Your task to perform on an android device: What's on my calendar tomorrow? Image 0: 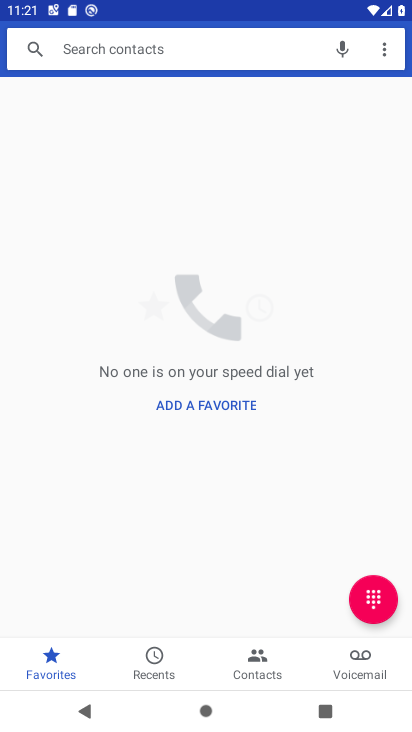
Step 0: press home button
Your task to perform on an android device: What's on my calendar tomorrow? Image 1: 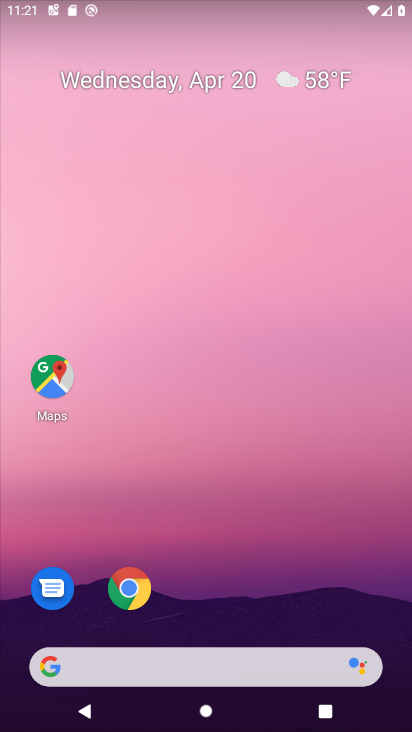
Step 1: click (114, 79)
Your task to perform on an android device: What's on my calendar tomorrow? Image 2: 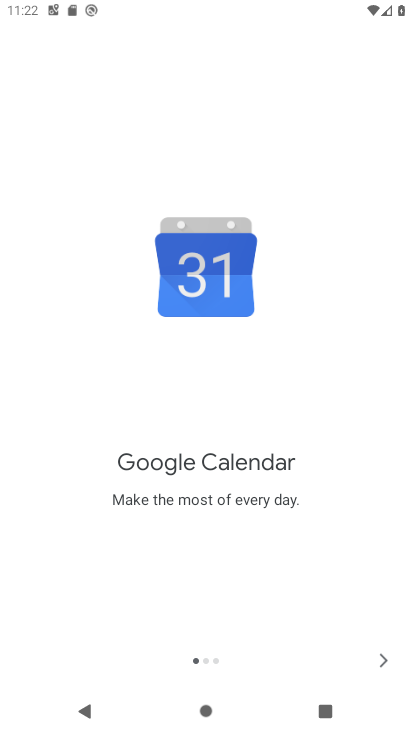
Step 2: click (383, 659)
Your task to perform on an android device: What's on my calendar tomorrow? Image 3: 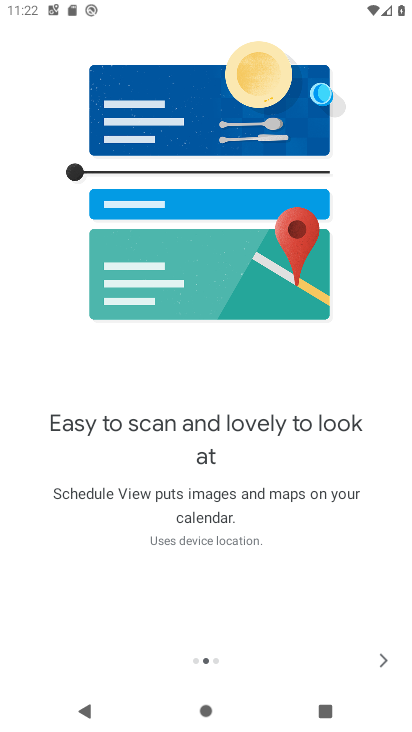
Step 3: click (383, 659)
Your task to perform on an android device: What's on my calendar tomorrow? Image 4: 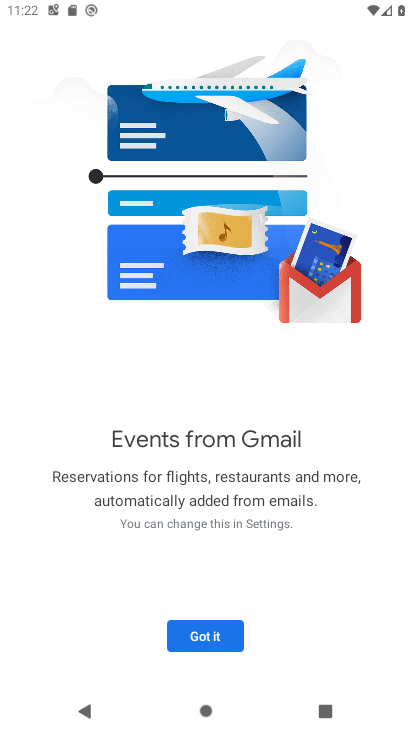
Step 4: click (383, 659)
Your task to perform on an android device: What's on my calendar tomorrow? Image 5: 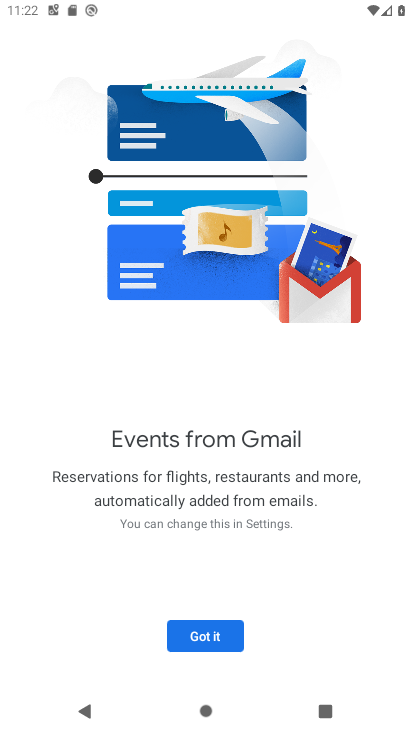
Step 5: click (205, 638)
Your task to perform on an android device: What's on my calendar tomorrow? Image 6: 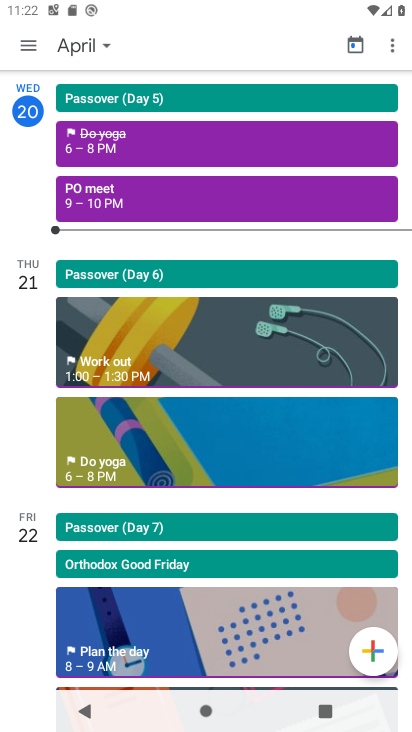
Step 6: task complete